Your task to perform on an android device: turn on the 12-hour format for clock Image 0: 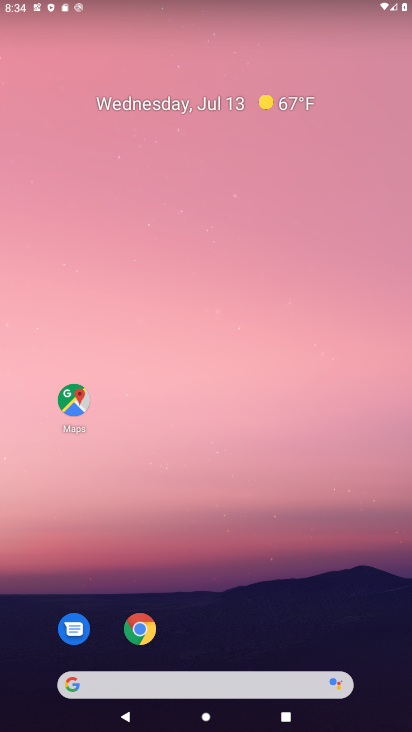
Step 0: drag from (235, 638) to (346, 4)
Your task to perform on an android device: turn on the 12-hour format for clock Image 1: 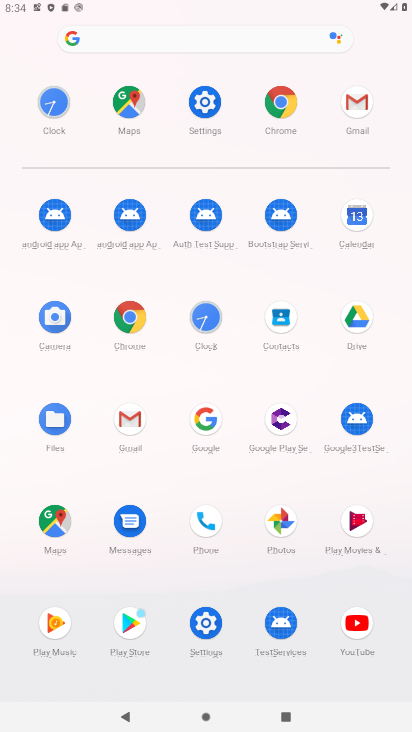
Step 1: click (205, 630)
Your task to perform on an android device: turn on the 12-hour format for clock Image 2: 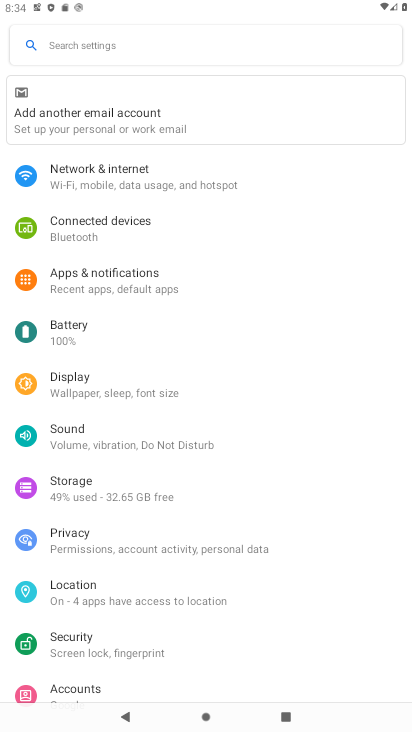
Step 2: drag from (93, 650) to (126, 352)
Your task to perform on an android device: turn on the 12-hour format for clock Image 3: 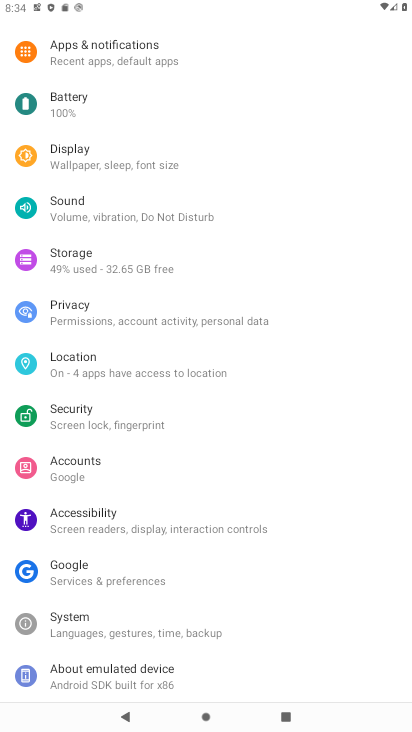
Step 3: click (86, 619)
Your task to perform on an android device: turn on the 12-hour format for clock Image 4: 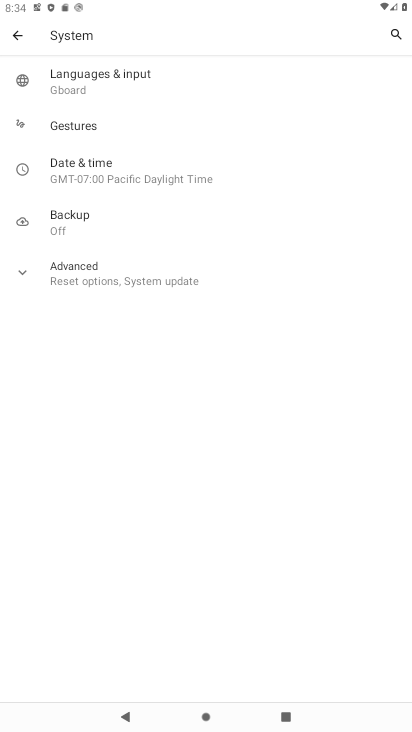
Step 4: click (122, 183)
Your task to perform on an android device: turn on the 12-hour format for clock Image 5: 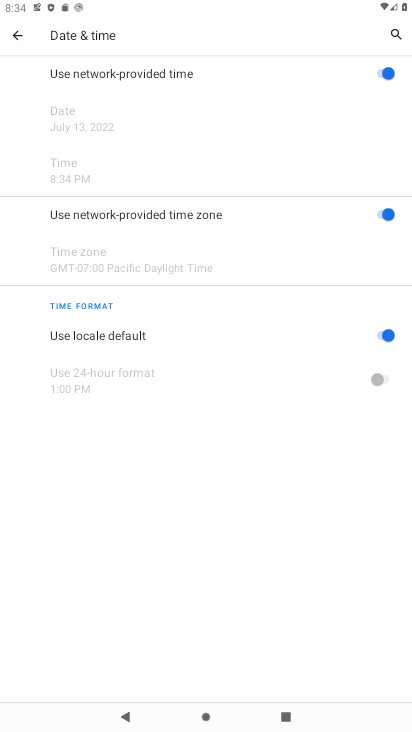
Step 5: task complete